Your task to perform on an android device: Set the phone to "Do not disturb". Image 0: 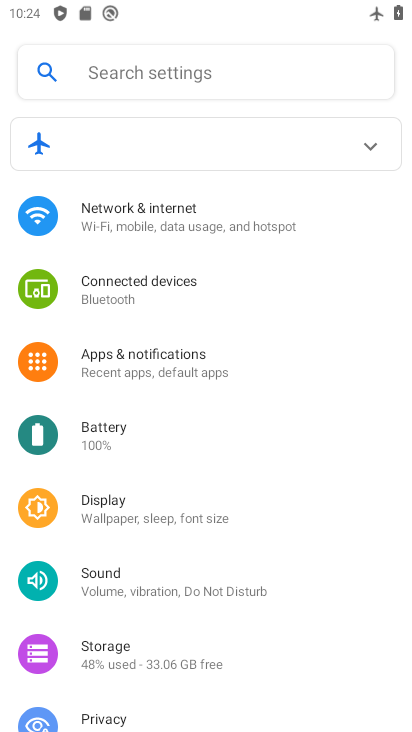
Step 0: click (158, 590)
Your task to perform on an android device: Set the phone to "Do not disturb". Image 1: 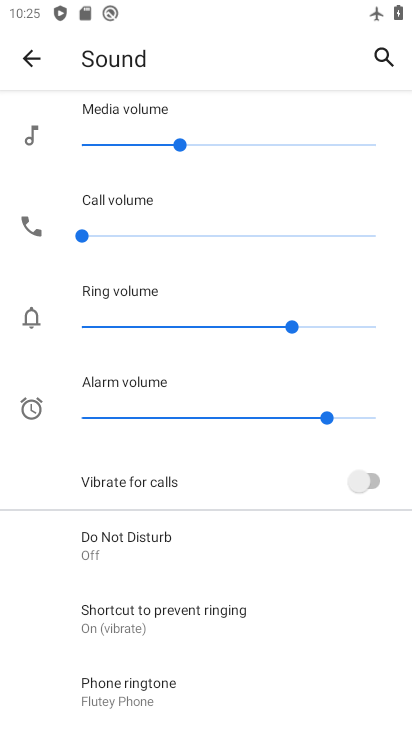
Step 1: click (110, 545)
Your task to perform on an android device: Set the phone to "Do not disturb". Image 2: 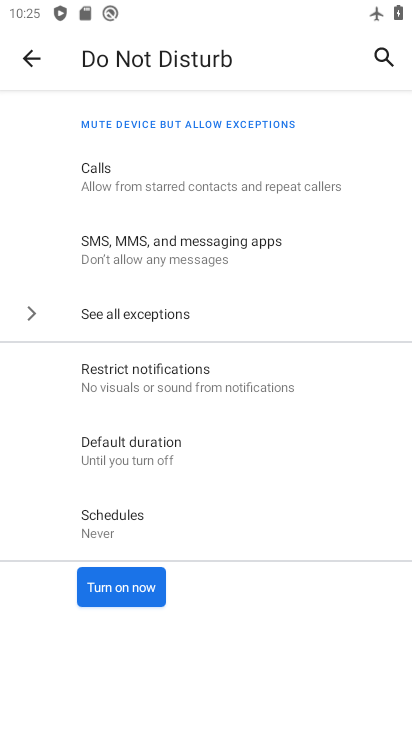
Step 2: click (124, 586)
Your task to perform on an android device: Set the phone to "Do not disturb". Image 3: 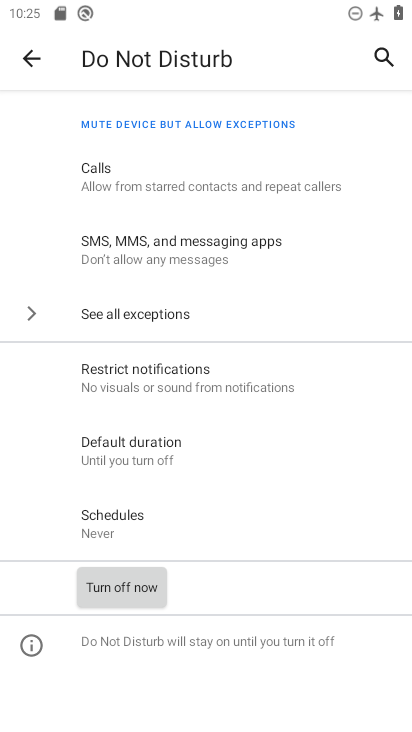
Step 3: task complete